Your task to perform on an android device: Open maps Image 0: 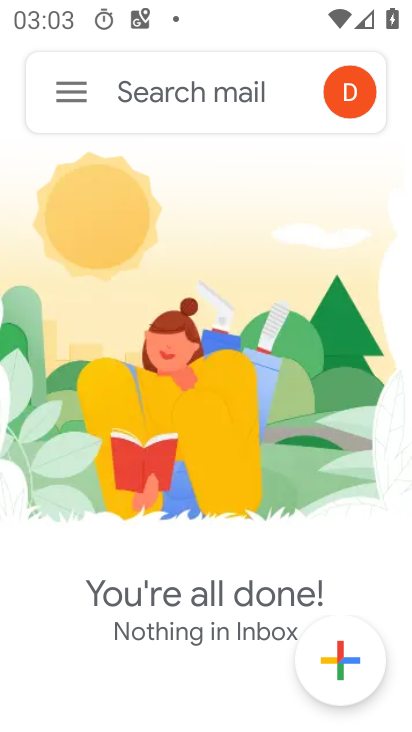
Step 0: press home button
Your task to perform on an android device: Open maps Image 1: 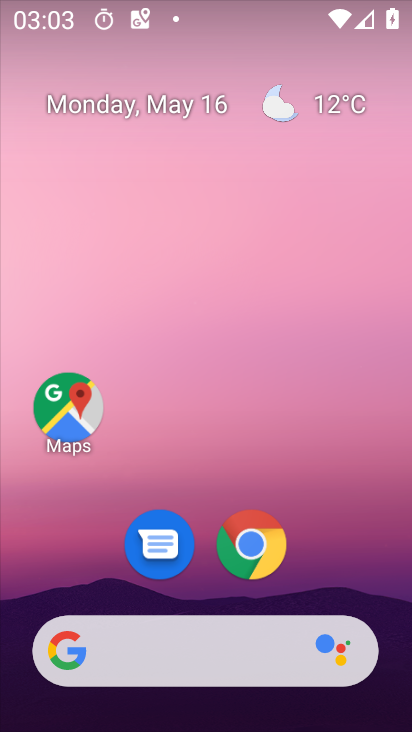
Step 1: drag from (202, 719) to (202, 182)
Your task to perform on an android device: Open maps Image 2: 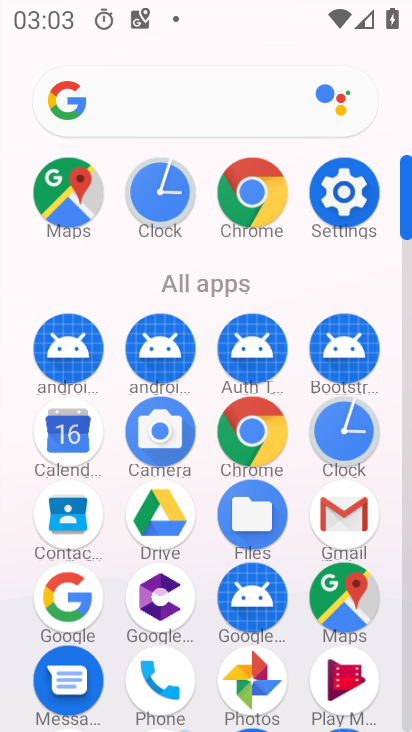
Step 2: click (346, 594)
Your task to perform on an android device: Open maps Image 3: 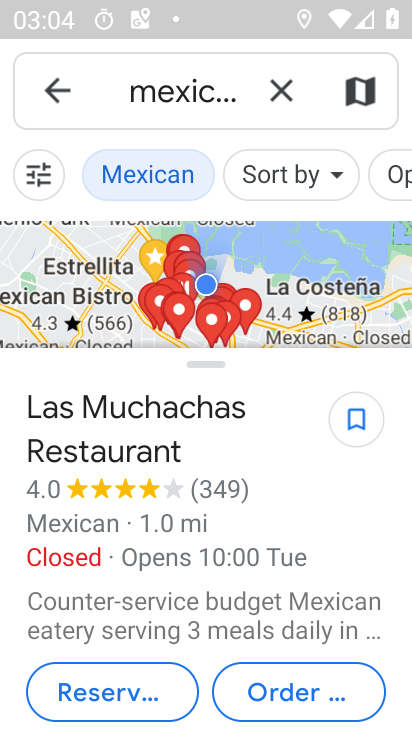
Step 3: task complete